Your task to perform on an android device: delete a single message in the gmail app Image 0: 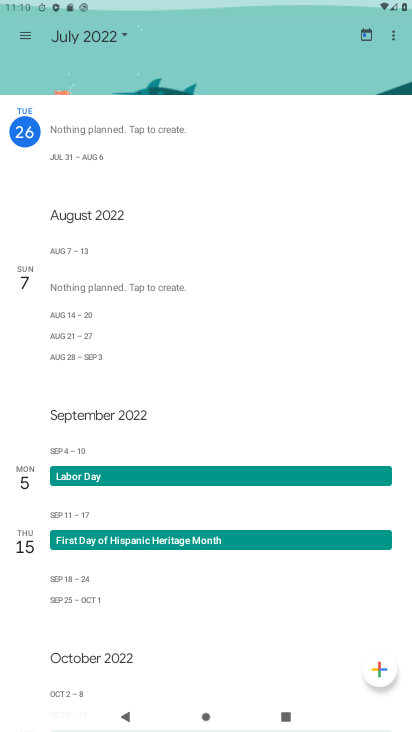
Step 0: press home button
Your task to perform on an android device: delete a single message in the gmail app Image 1: 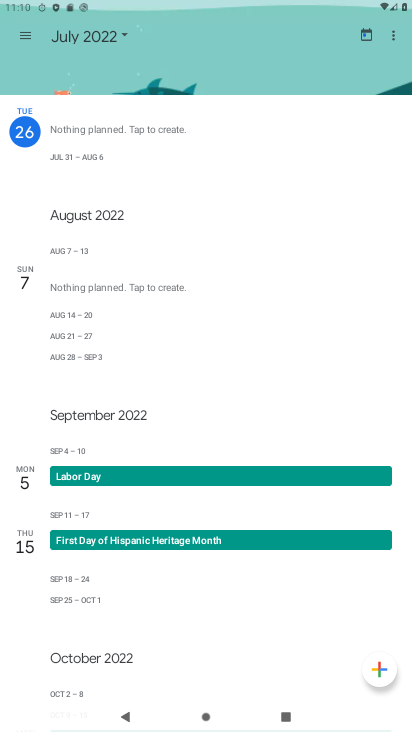
Step 1: drag from (348, 697) to (215, 73)
Your task to perform on an android device: delete a single message in the gmail app Image 2: 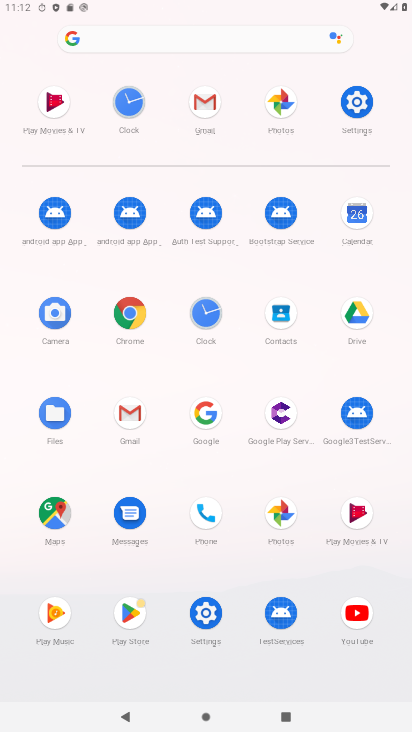
Step 2: click (146, 427)
Your task to perform on an android device: delete a single message in the gmail app Image 3: 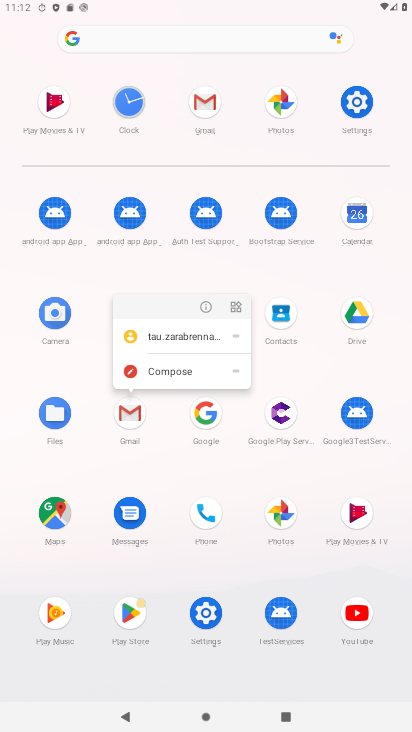
Step 3: click (134, 417)
Your task to perform on an android device: delete a single message in the gmail app Image 4: 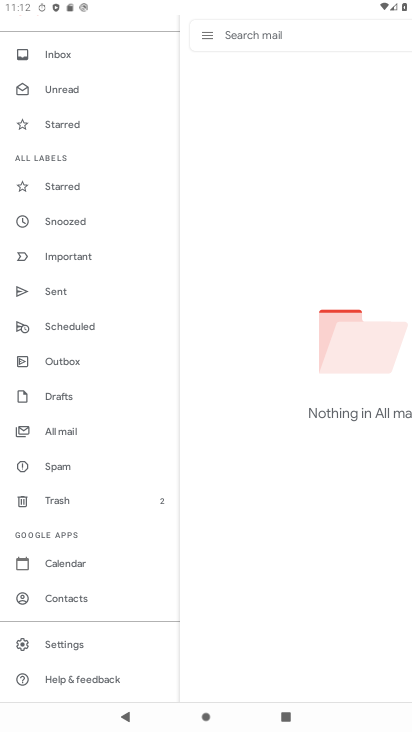
Step 4: task complete